Your task to perform on an android device: see sites visited before in the chrome app Image 0: 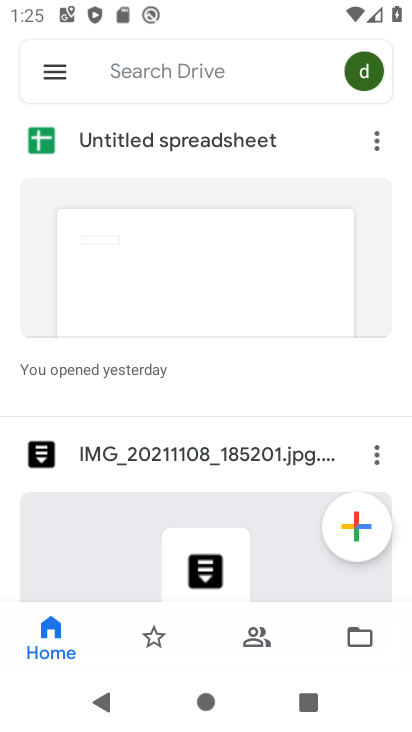
Step 0: press home button
Your task to perform on an android device: see sites visited before in the chrome app Image 1: 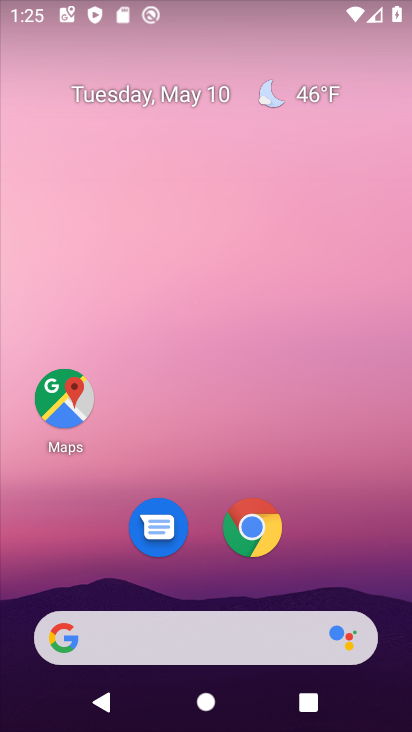
Step 1: click (246, 536)
Your task to perform on an android device: see sites visited before in the chrome app Image 2: 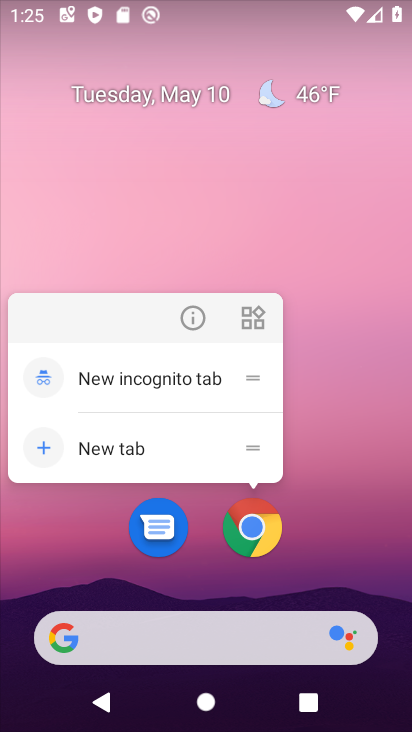
Step 2: click (258, 526)
Your task to perform on an android device: see sites visited before in the chrome app Image 3: 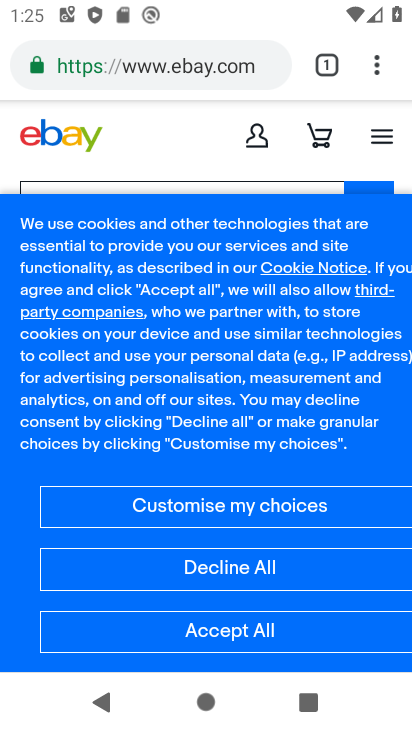
Step 3: task complete